Your task to perform on an android device: open app "Google Sheets" Image 0: 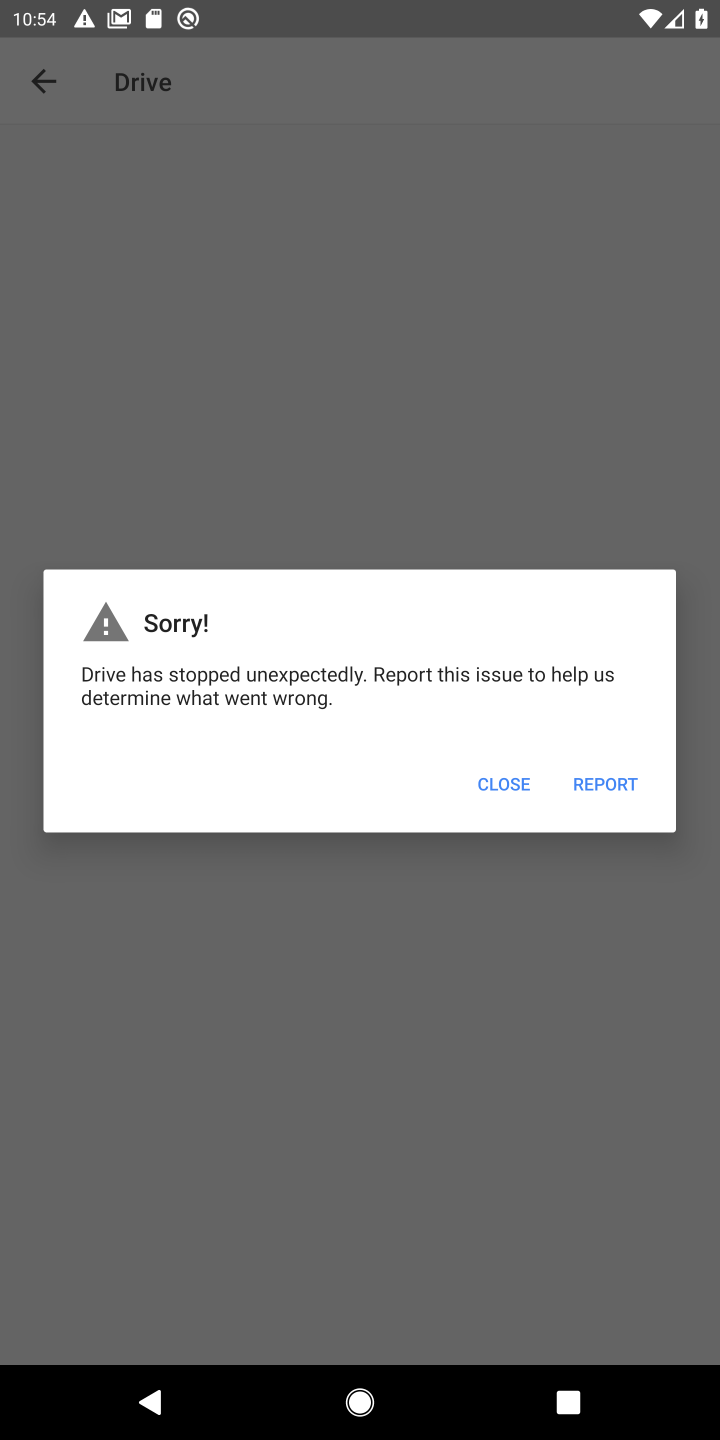
Step 0: press home button
Your task to perform on an android device: open app "Google Sheets" Image 1: 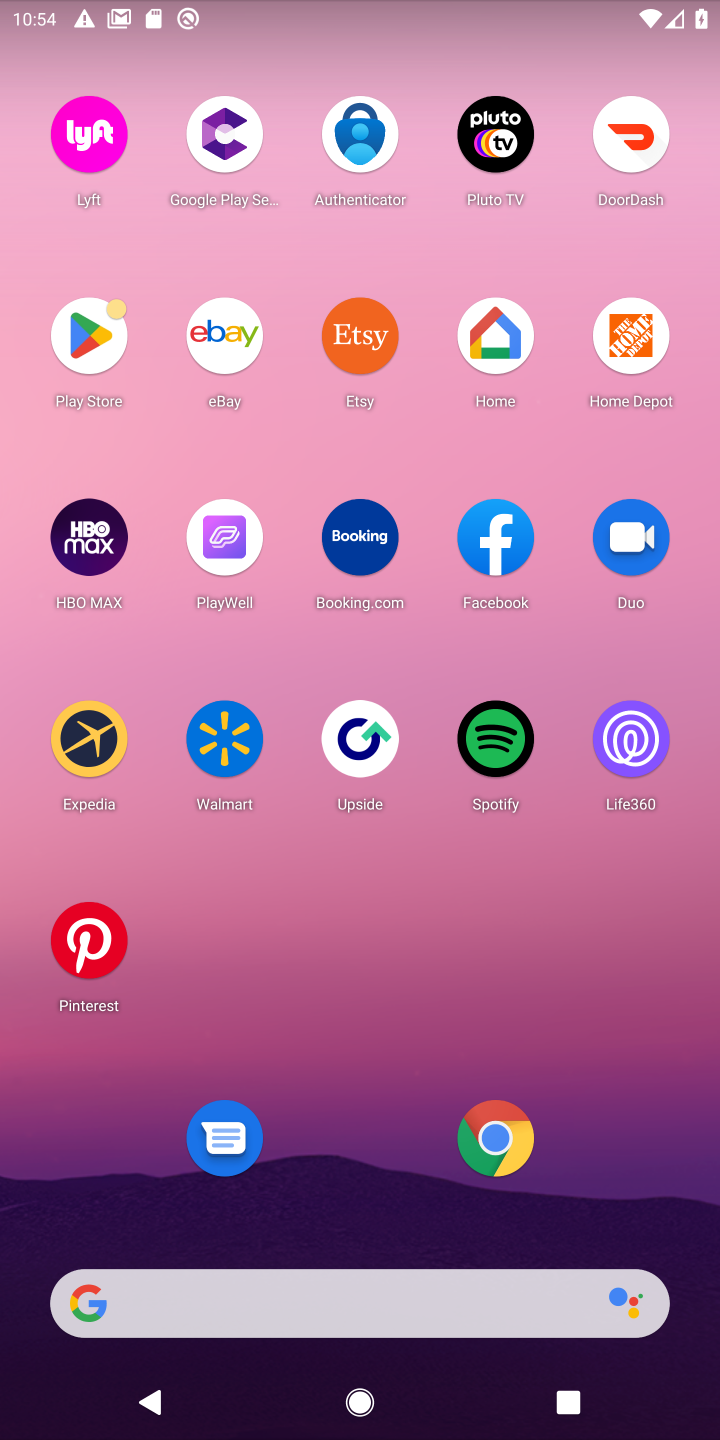
Step 1: click (99, 372)
Your task to perform on an android device: open app "Google Sheets" Image 2: 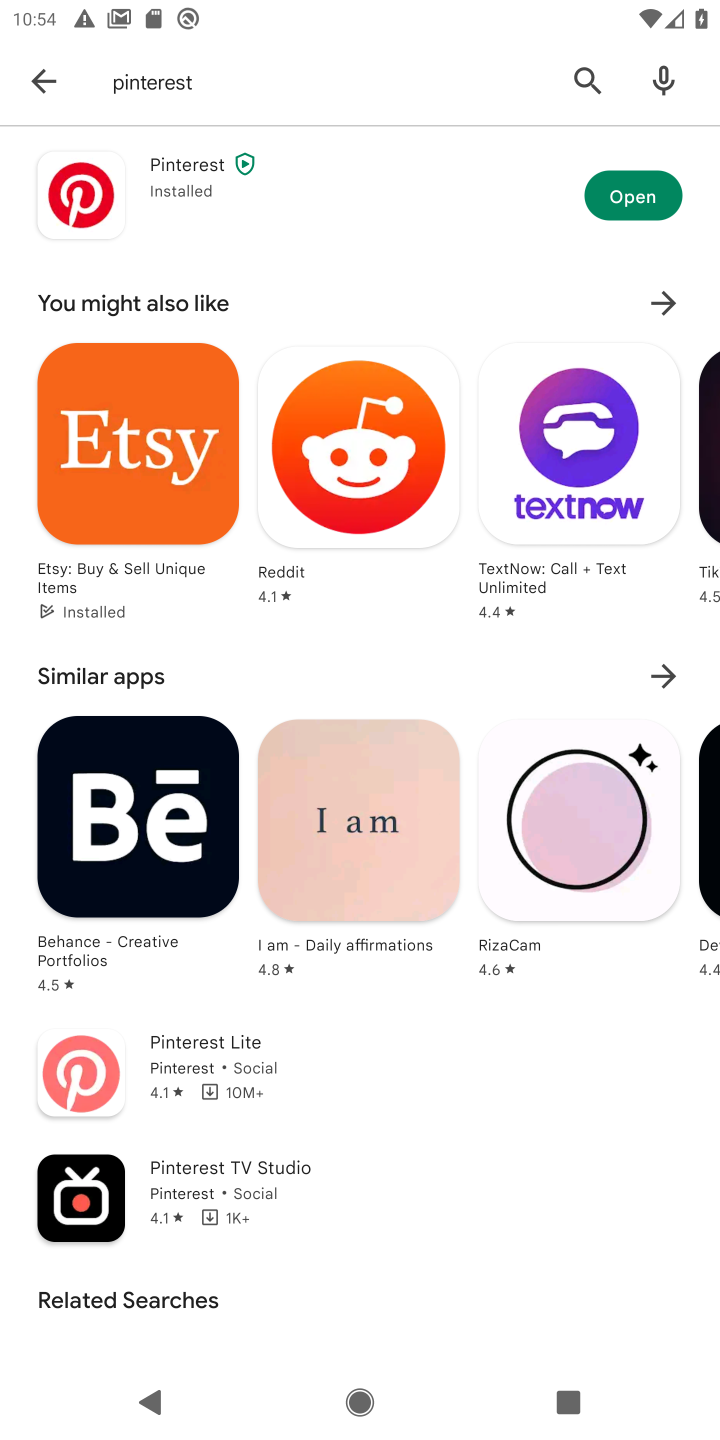
Step 2: click (583, 82)
Your task to perform on an android device: open app "Google Sheets" Image 3: 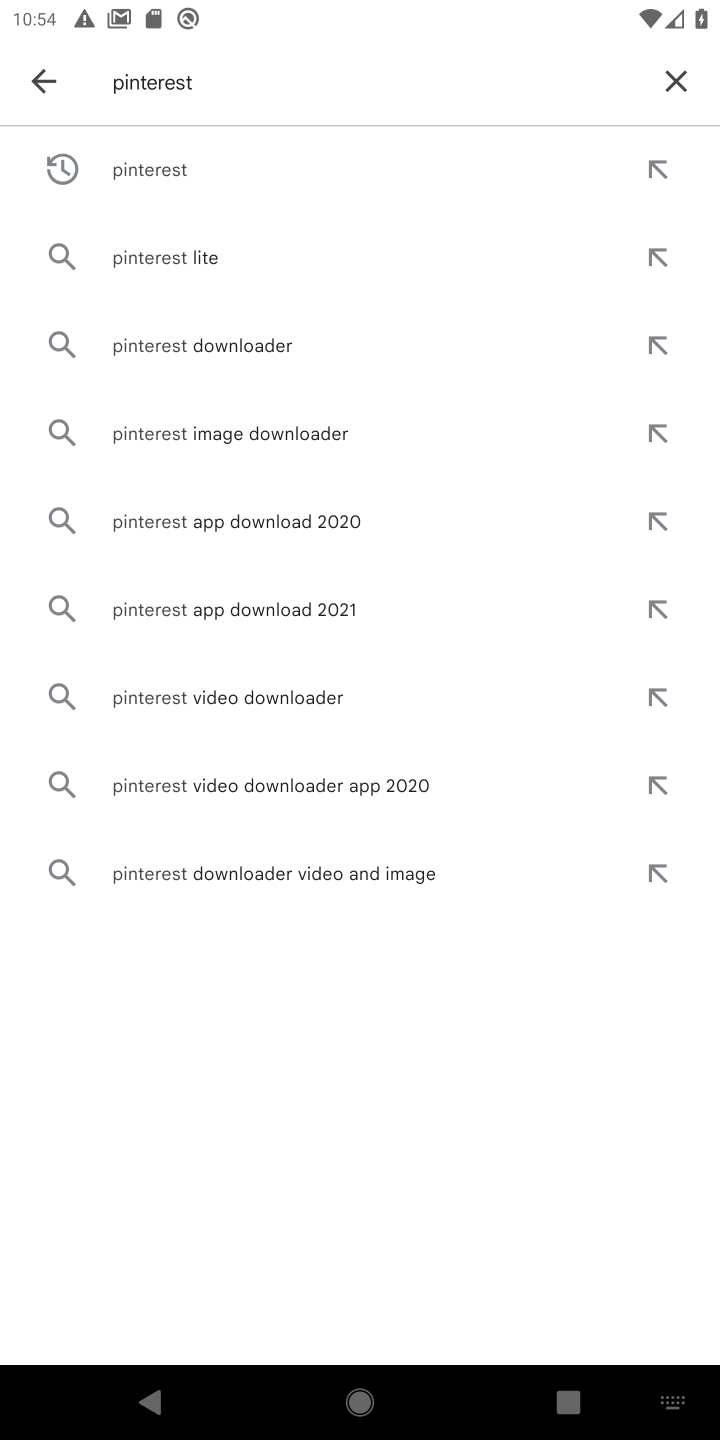
Step 3: click (674, 83)
Your task to perform on an android device: open app "Google Sheets" Image 4: 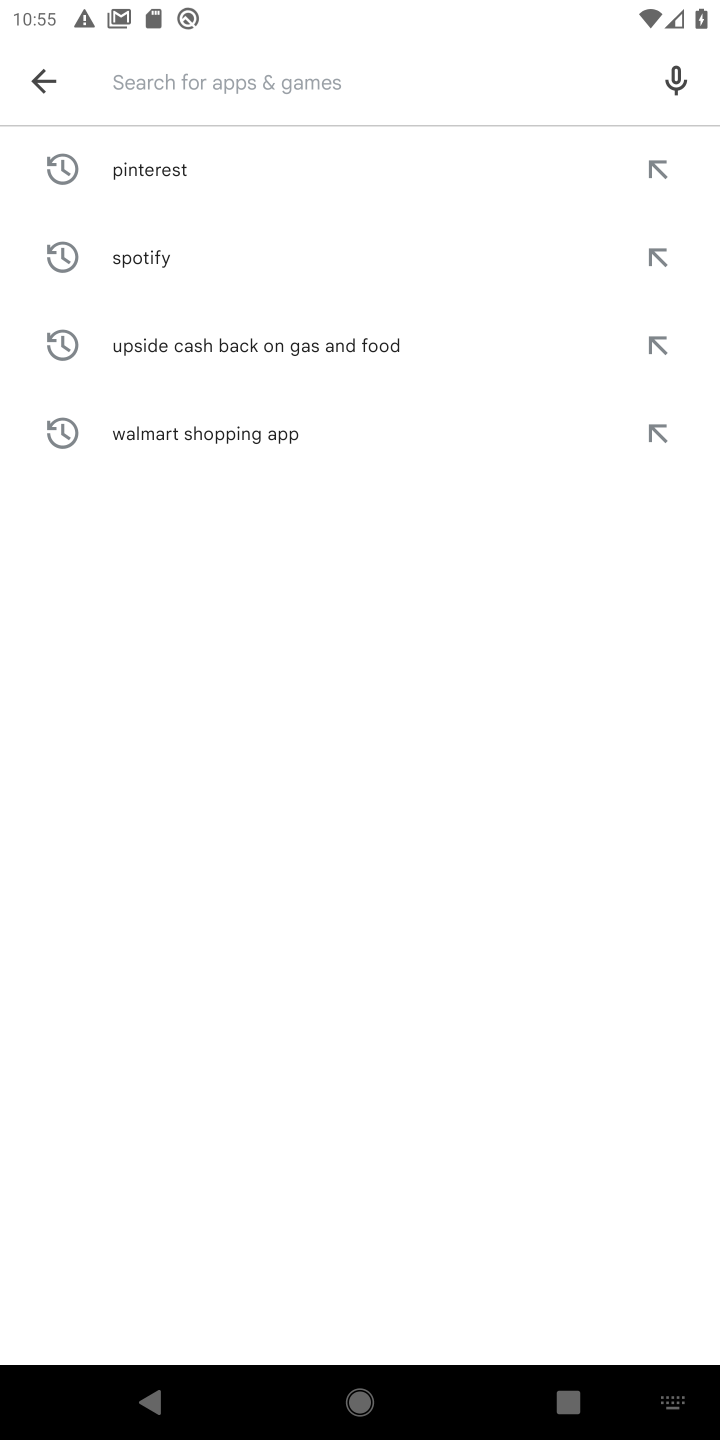
Step 4: type "Google Sheets""
Your task to perform on an android device: open app "Google Sheets" Image 5: 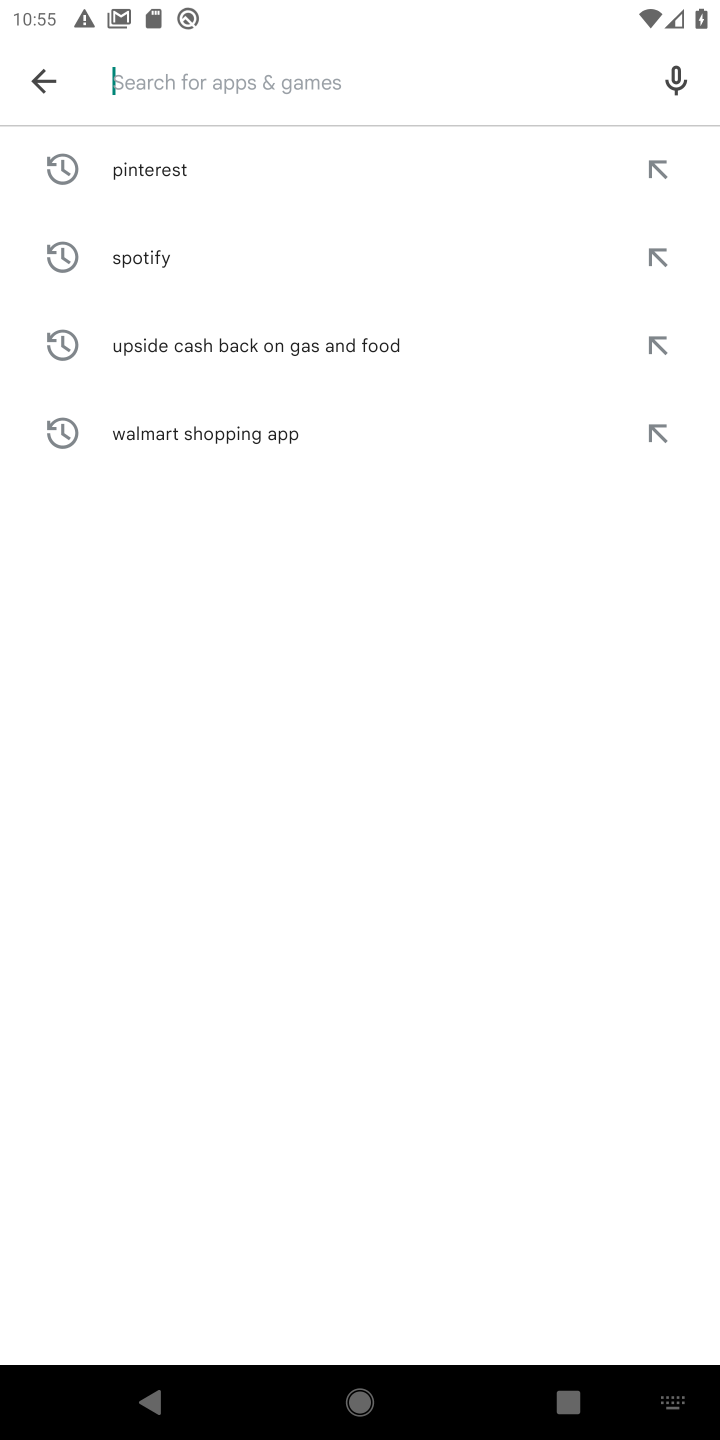
Step 5: type ""
Your task to perform on an android device: open app "Google Sheets" Image 6: 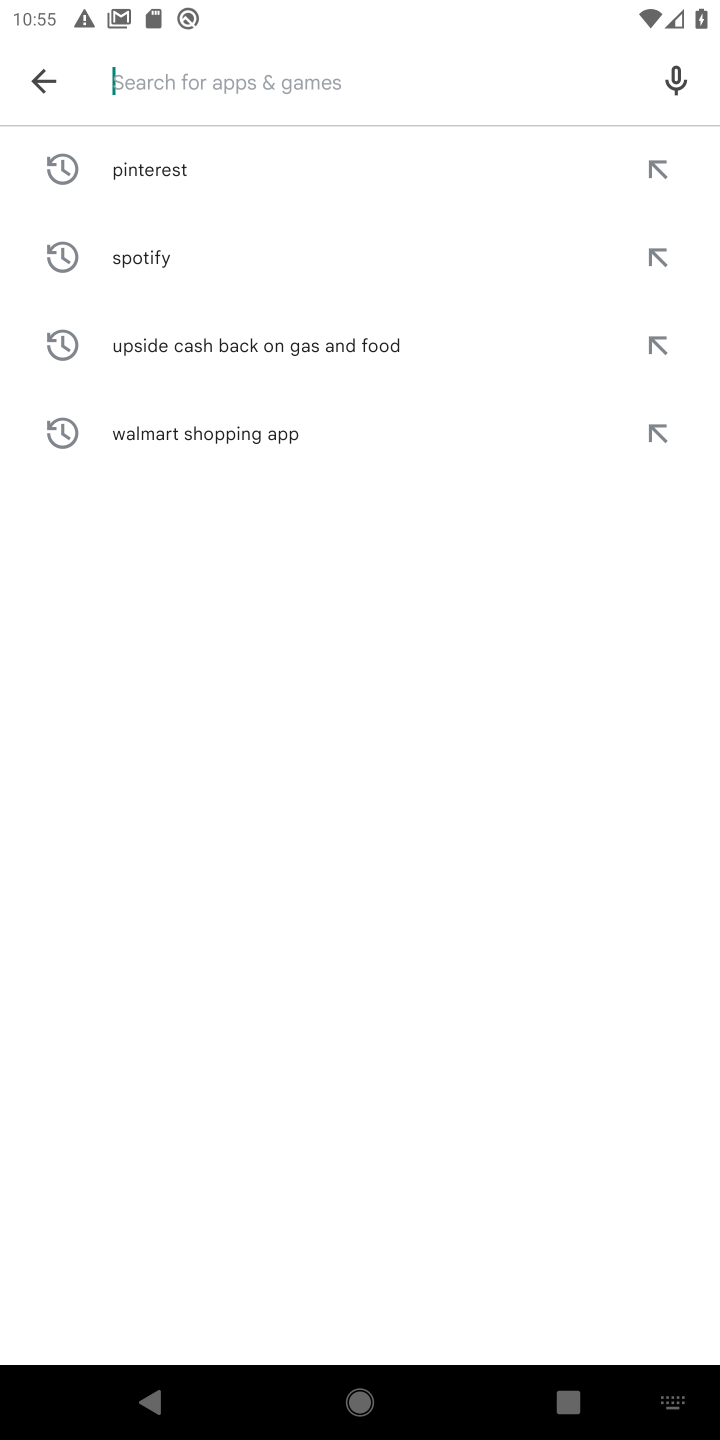
Step 6: type "google sheets"
Your task to perform on an android device: open app "Google Sheets" Image 7: 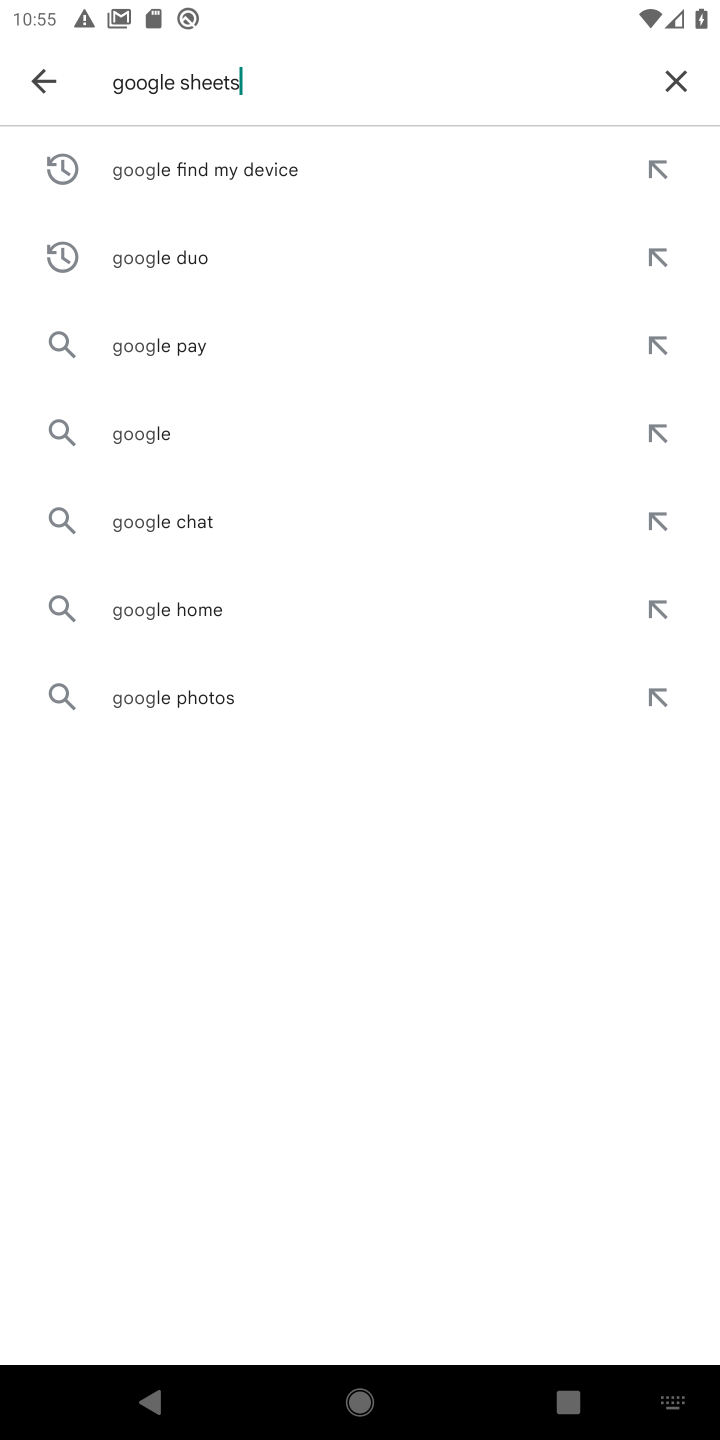
Step 7: type ""
Your task to perform on an android device: open app "Google Sheets" Image 8: 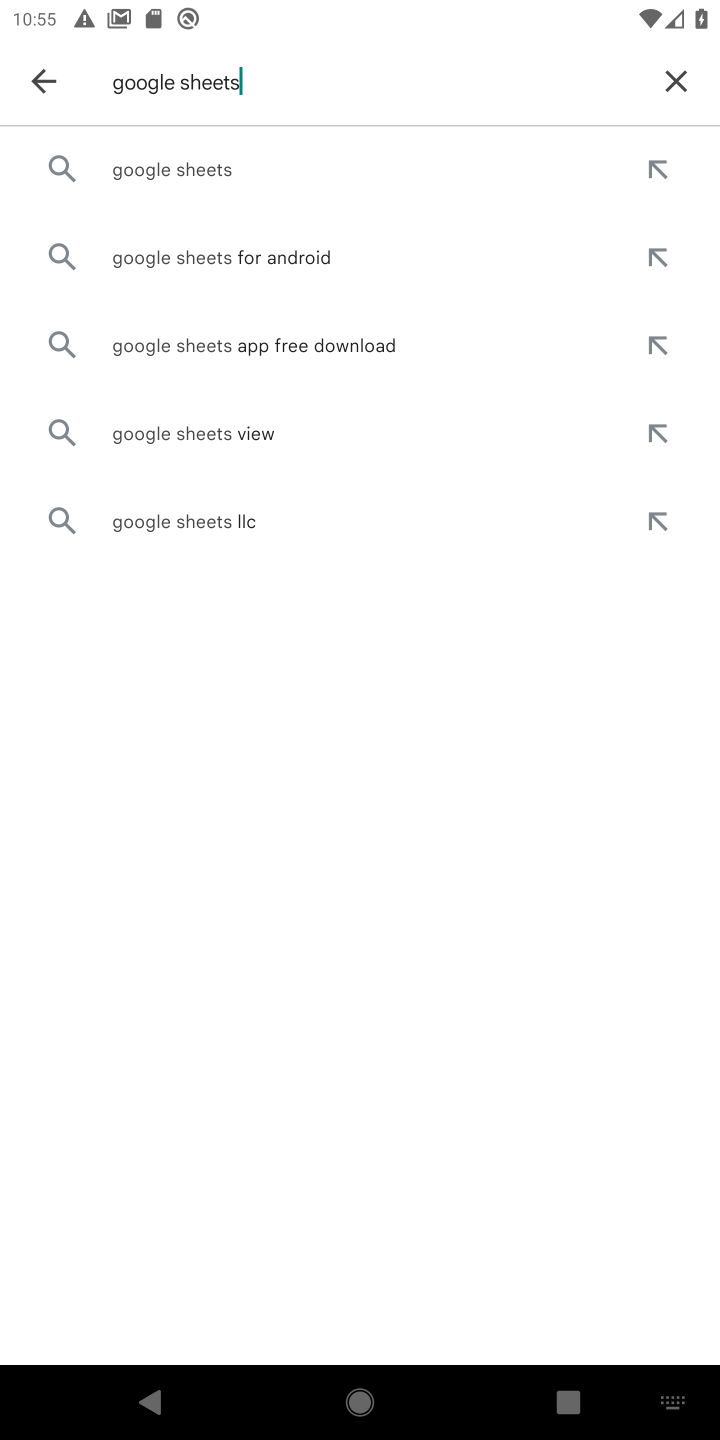
Step 8: click (210, 169)
Your task to perform on an android device: open app "Google Sheets" Image 9: 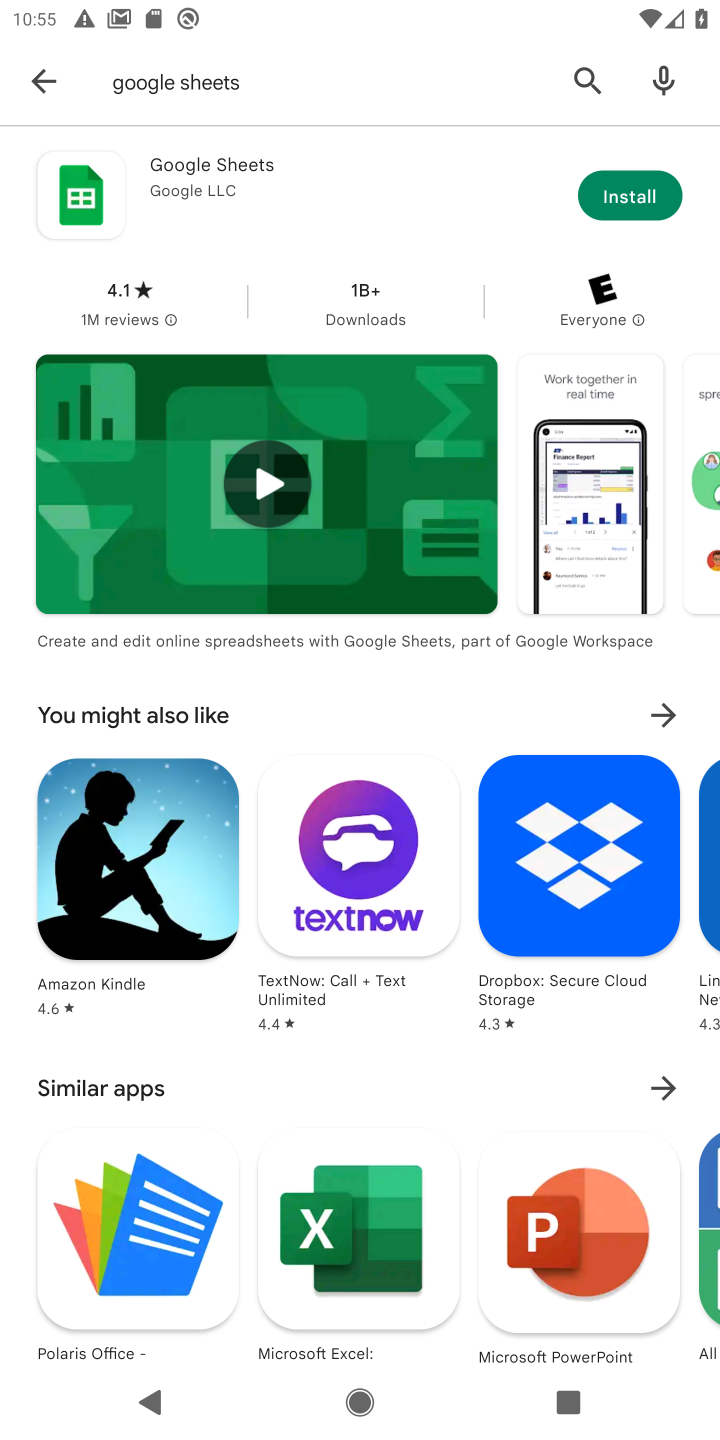
Step 9: click (620, 197)
Your task to perform on an android device: open app "Google Sheets" Image 10: 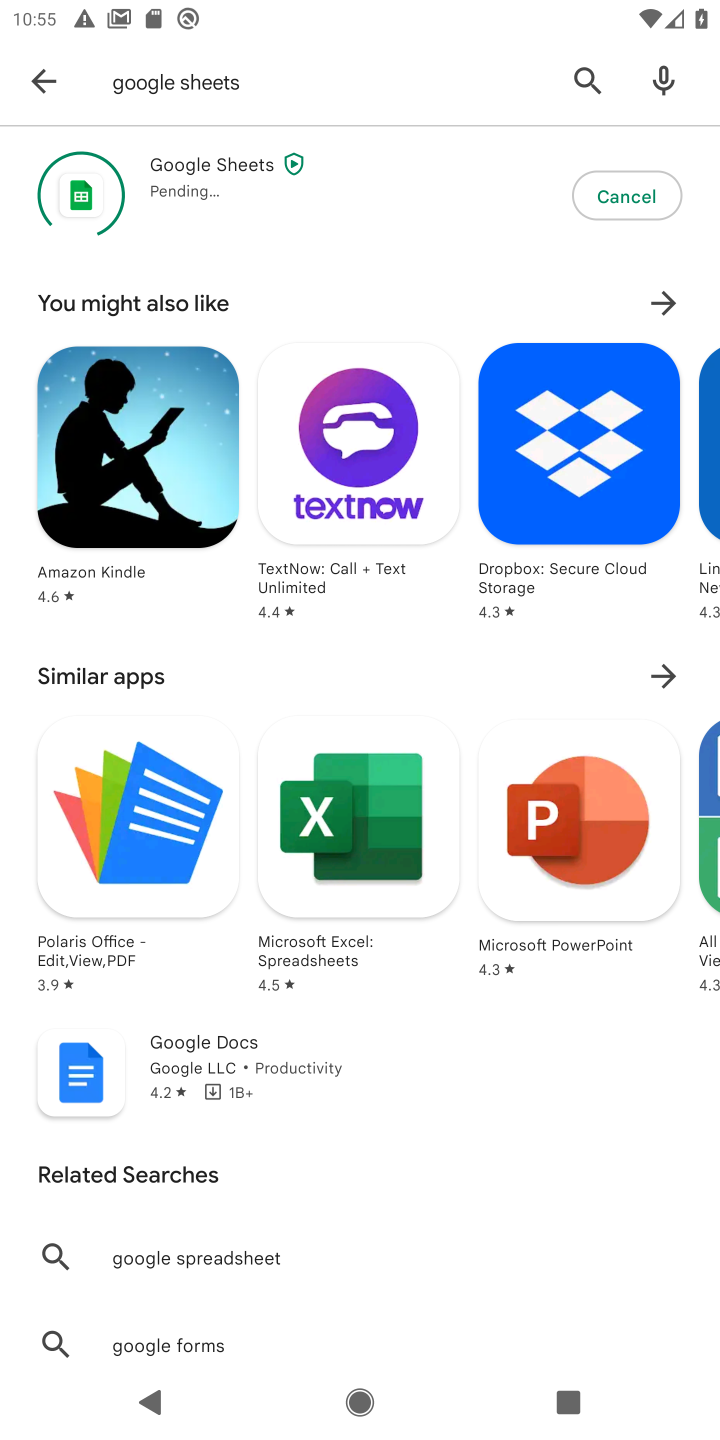
Step 10: click (620, 197)
Your task to perform on an android device: open app "Google Sheets" Image 11: 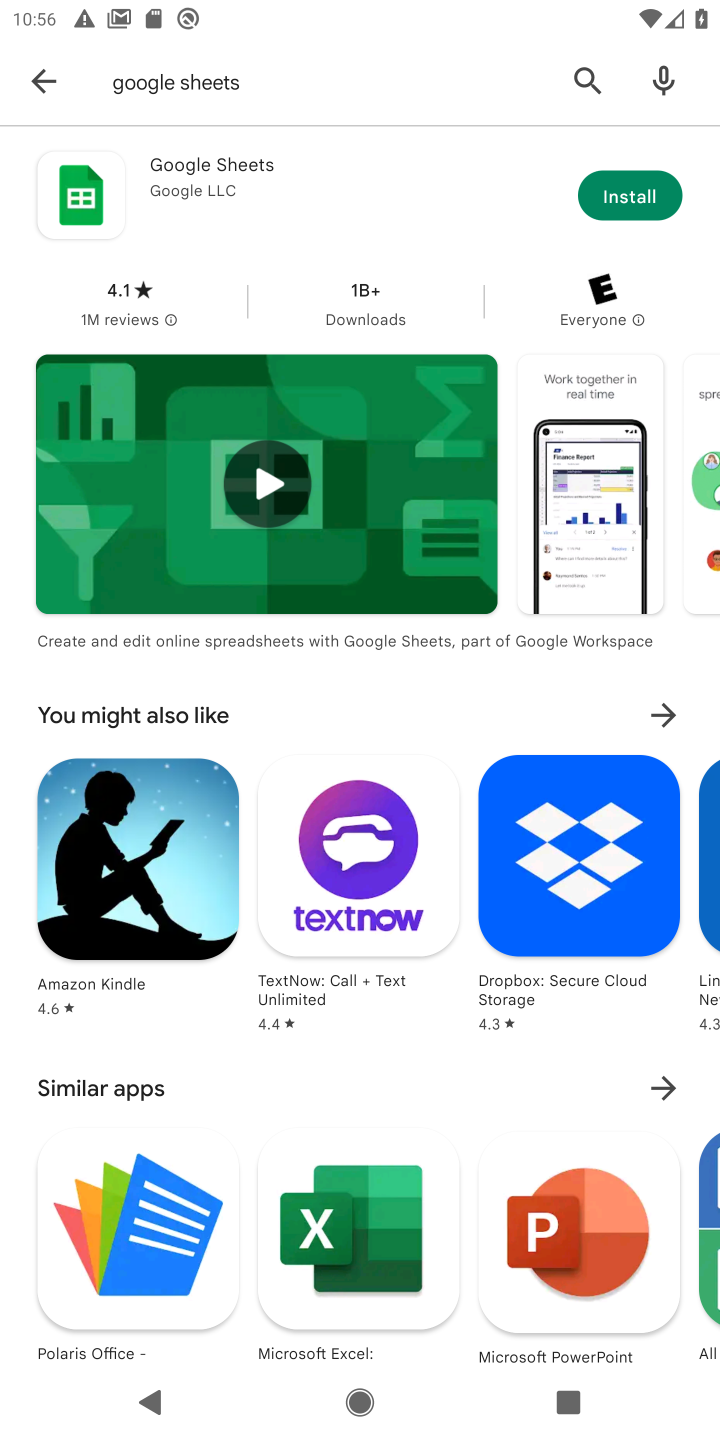
Step 11: task complete